Your task to perform on an android device: Open Android settings Image 0: 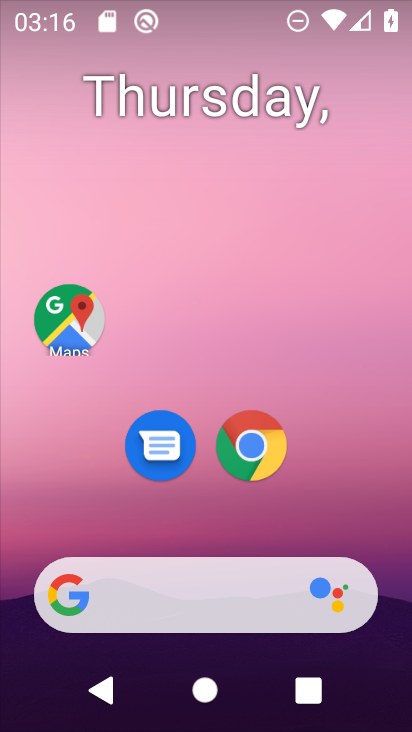
Step 0: drag from (327, 539) to (406, 7)
Your task to perform on an android device: Open Android settings Image 1: 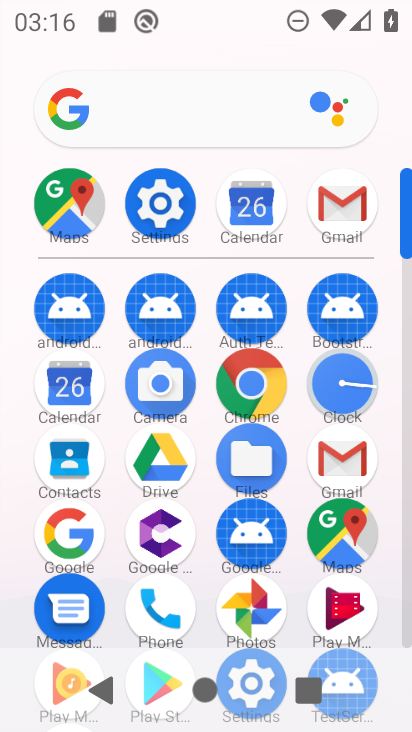
Step 1: click (158, 205)
Your task to perform on an android device: Open Android settings Image 2: 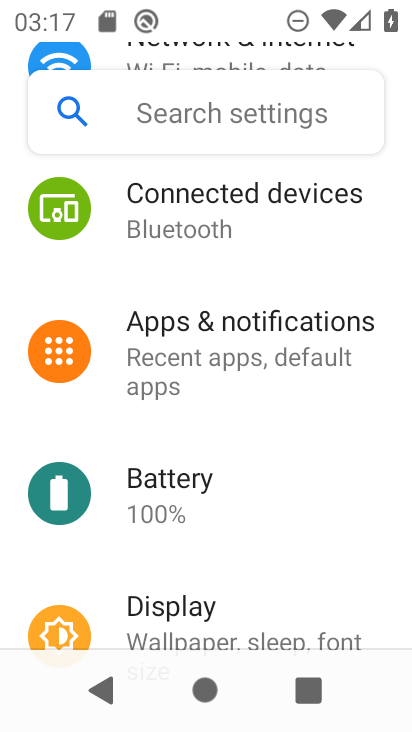
Step 2: task complete